Your task to perform on an android device: show emergency info Image 0: 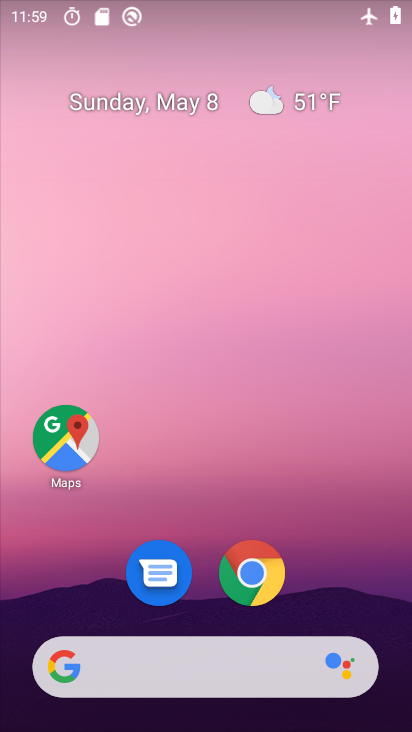
Step 0: drag from (221, 640) to (240, 293)
Your task to perform on an android device: show emergency info Image 1: 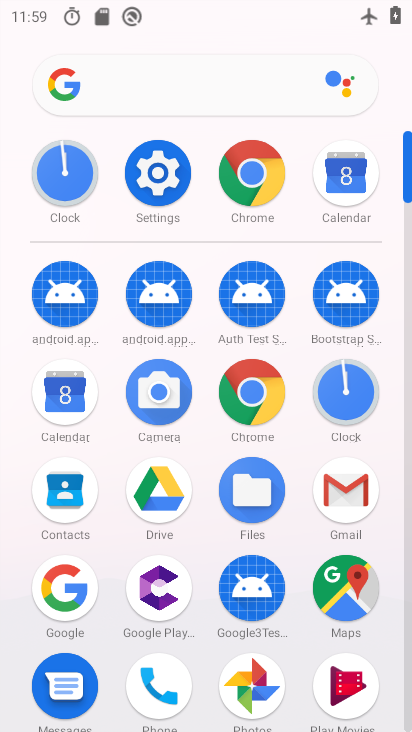
Step 1: click (153, 173)
Your task to perform on an android device: show emergency info Image 2: 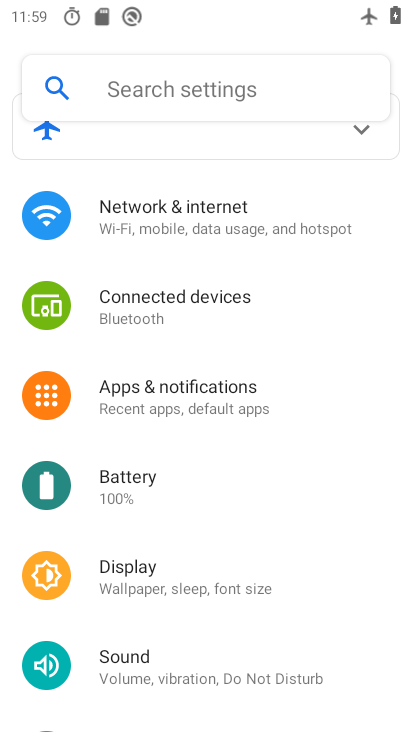
Step 2: drag from (149, 679) to (147, 282)
Your task to perform on an android device: show emergency info Image 3: 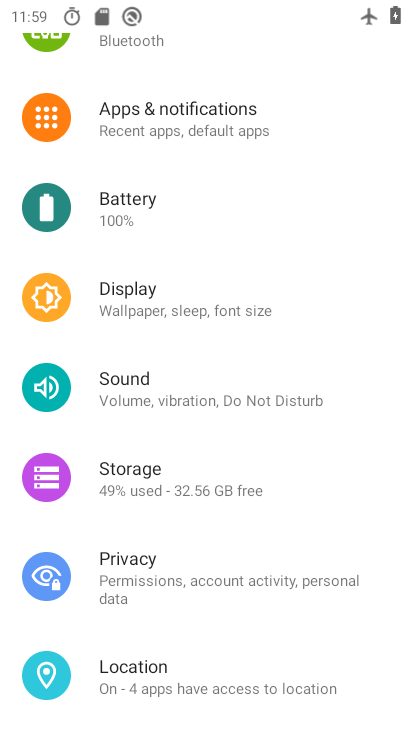
Step 3: drag from (143, 688) to (173, 317)
Your task to perform on an android device: show emergency info Image 4: 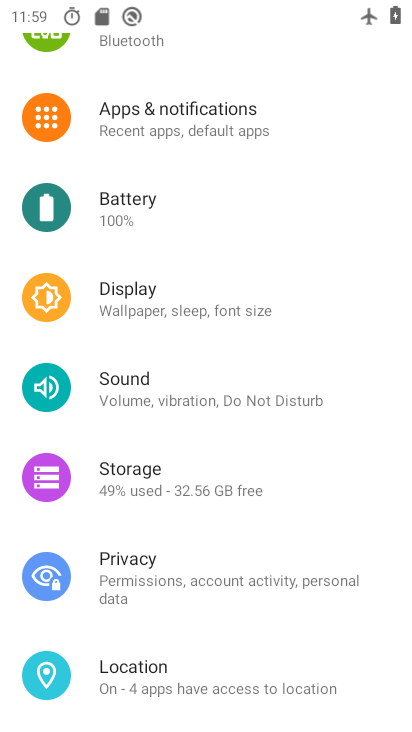
Step 4: drag from (170, 653) to (167, 305)
Your task to perform on an android device: show emergency info Image 5: 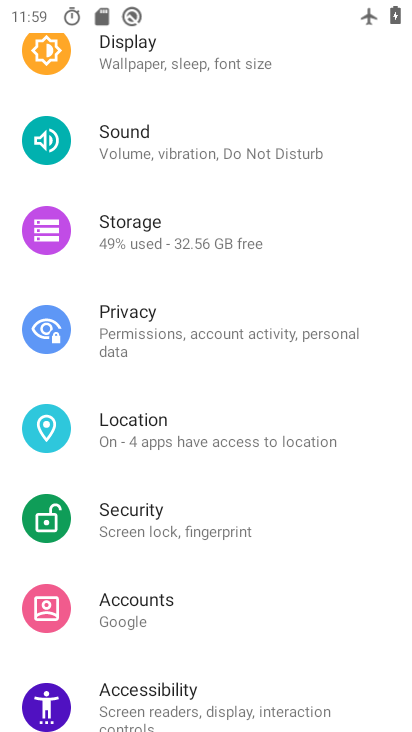
Step 5: drag from (141, 708) to (144, 300)
Your task to perform on an android device: show emergency info Image 6: 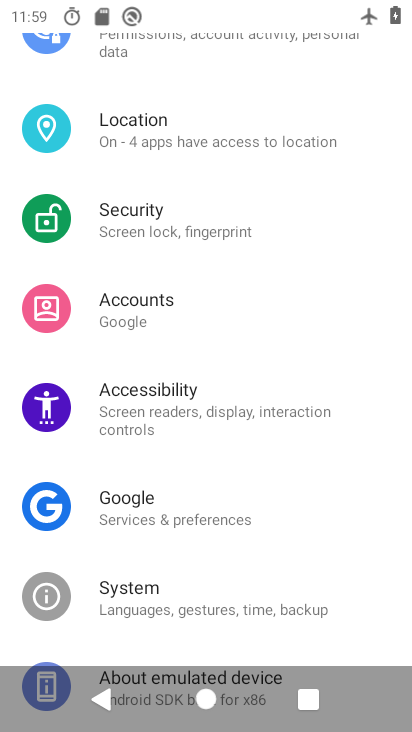
Step 6: drag from (152, 636) to (150, 380)
Your task to perform on an android device: show emergency info Image 7: 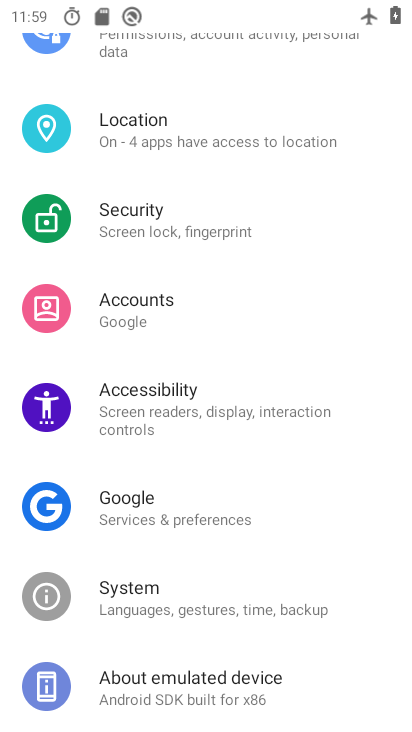
Step 7: click (145, 695)
Your task to perform on an android device: show emergency info Image 8: 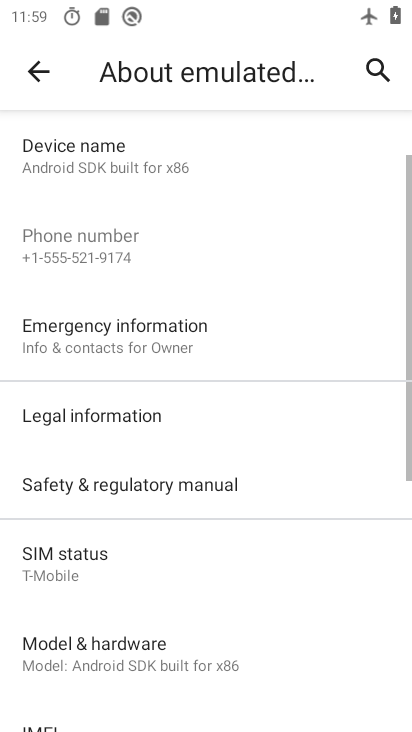
Step 8: drag from (145, 693) to (163, 286)
Your task to perform on an android device: show emergency info Image 9: 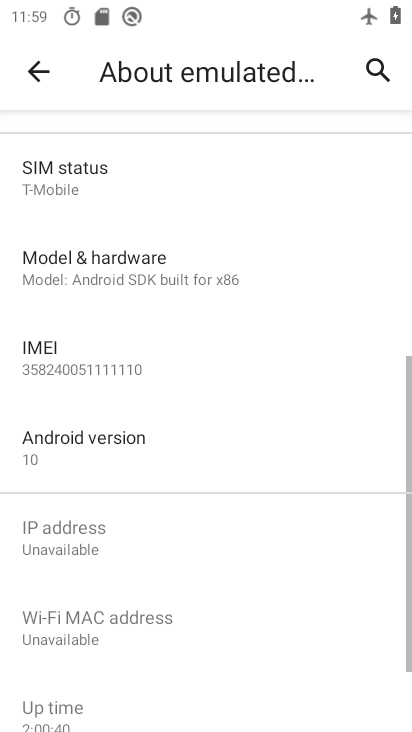
Step 9: drag from (100, 687) to (176, 293)
Your task to perform on an android device: show emergency info Image 10: 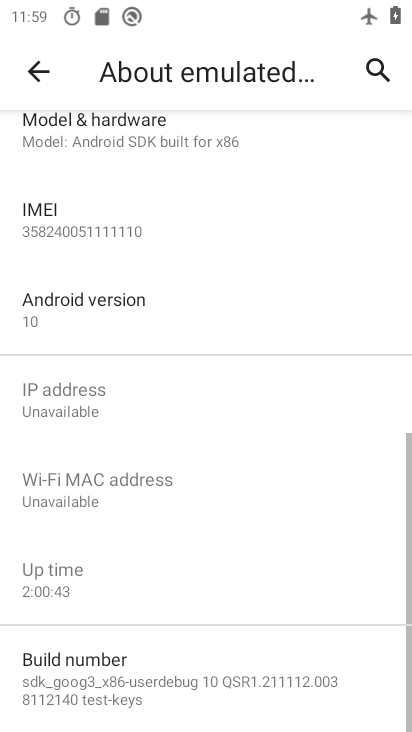
Step 10: click (214, 105)
Your task to perform on an android device: show emergency info Image 11: 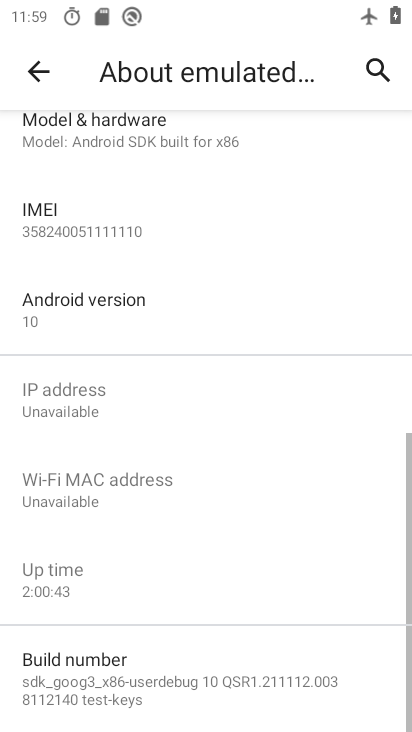
Step 11: drag from (211, 121) to (162, 472)
Your task to perform on an android device: show emergency info Image 12: 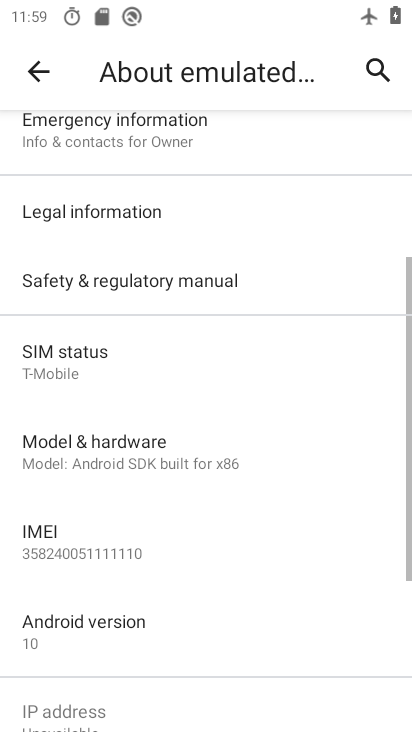
Step 12: click (124, 132)
Your task to perform on an android device: show emergency info Image 13: 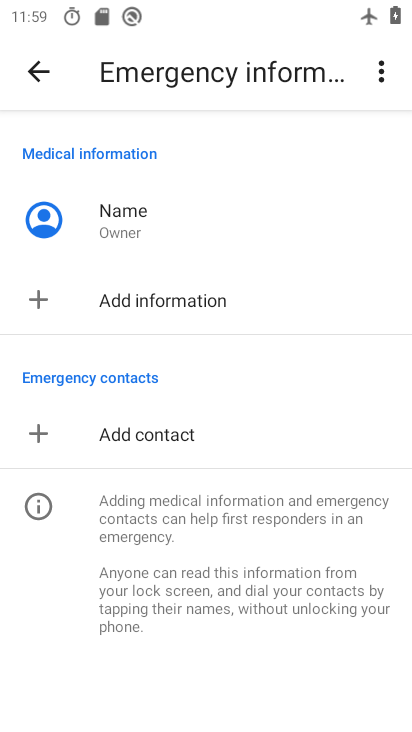
Step 13: task complete